Your task to perform on an android device: Is it going to rain tomorrow? Image 0: 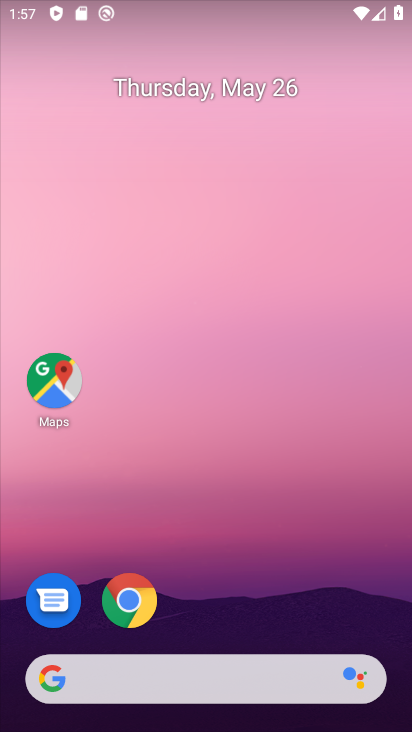
Step 0: drag from (296, 556) to (159, 44)
Your task to perform on an android device: Is it going to rain tomorrow? Image 1: 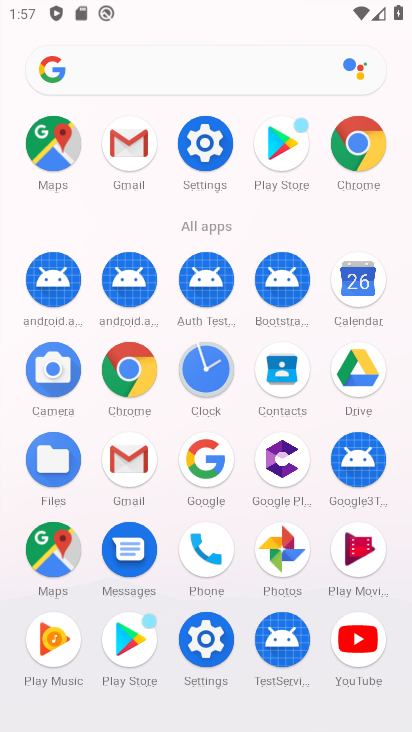
Step 1: drag from (9, 570) to (10, 253)
Your task to perform on an android device: Is it going to rain tomorrow? Image 2: 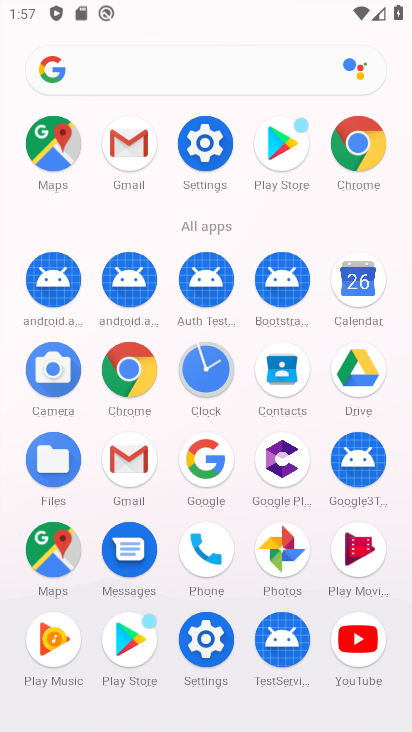
Step 2: click (128, 369)
Your task to perform on an android device: Is it going to rain tomorrow? Image 3: 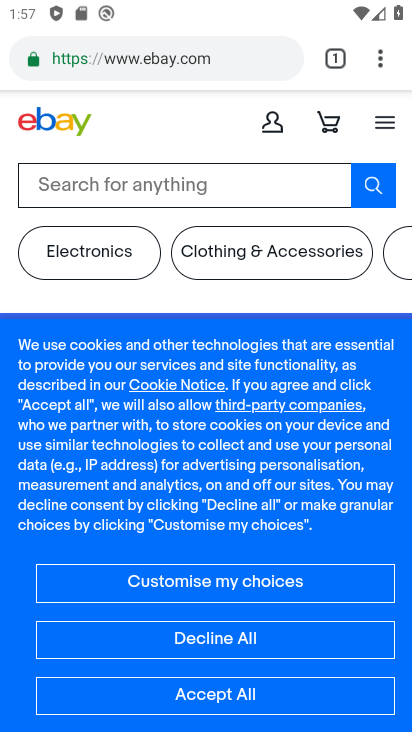
Step 3: click (152, 45)
Your task to perform on an android device: Is it going to rain tomorrow? Image 4: 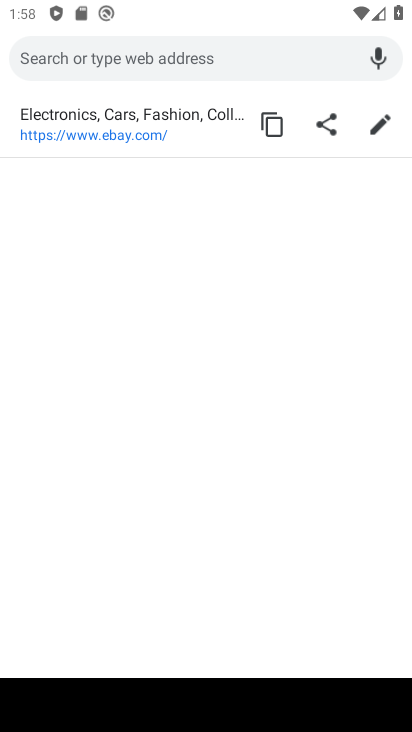
Step 4: type "Is it going to rain tomorrow?"
Your task to perform on an android device: Is it going to rain tomorrow? Image 5: 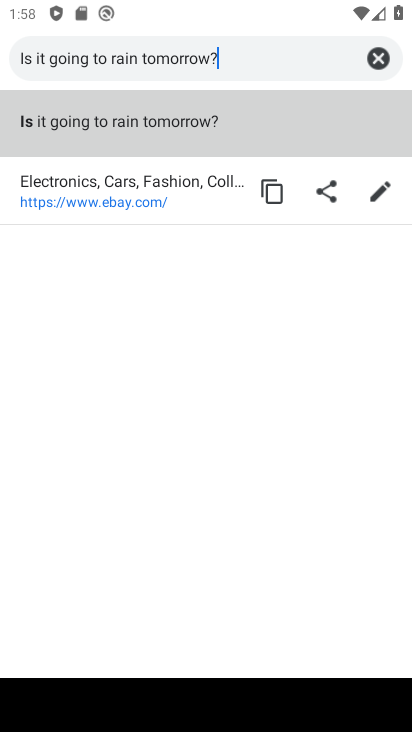
Step 5: type ""
Your task to perform on an android device: Is it going to rain tomorrow? Image 6: 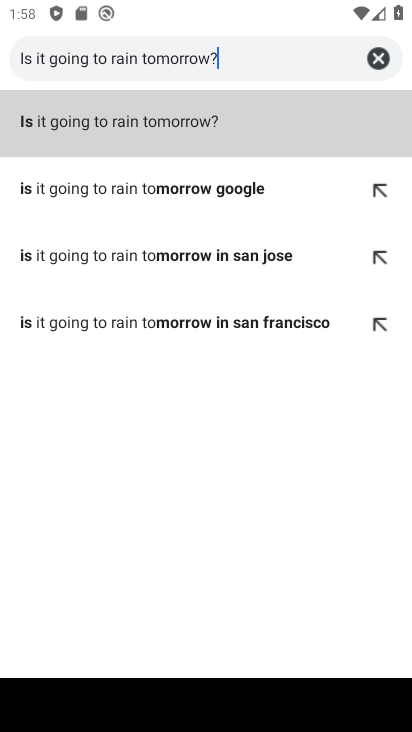
Step 6: click (123, 107)
Your task to perform on an android device: Is it going to rain tomorrow? Image 7: 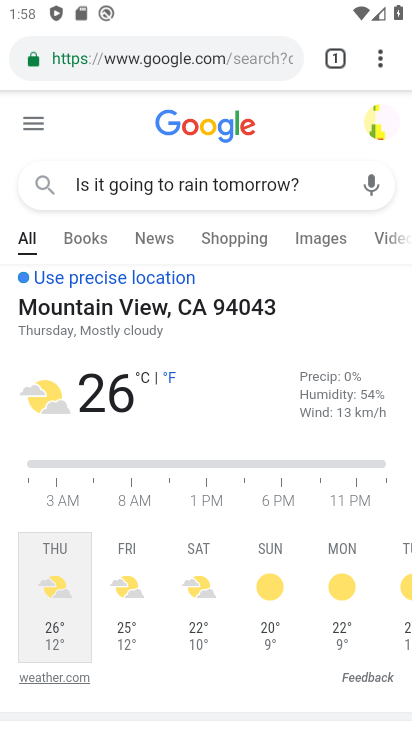
Step 7: task complete